Your task to perform on an android device: add a contact Image 0: 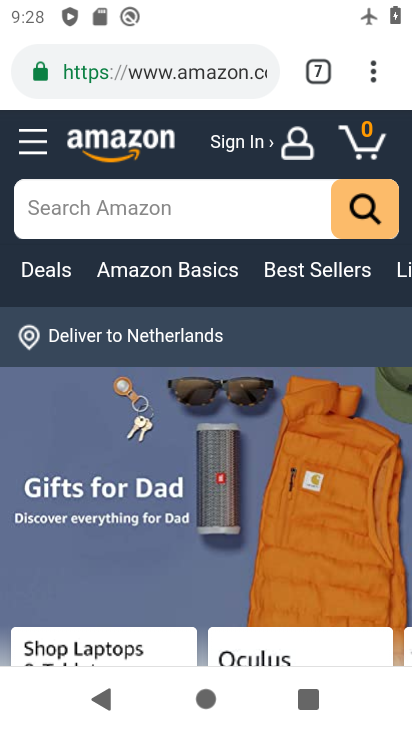
Step 0: press home button
Your task to perform on an android device: add a contact Image 1: 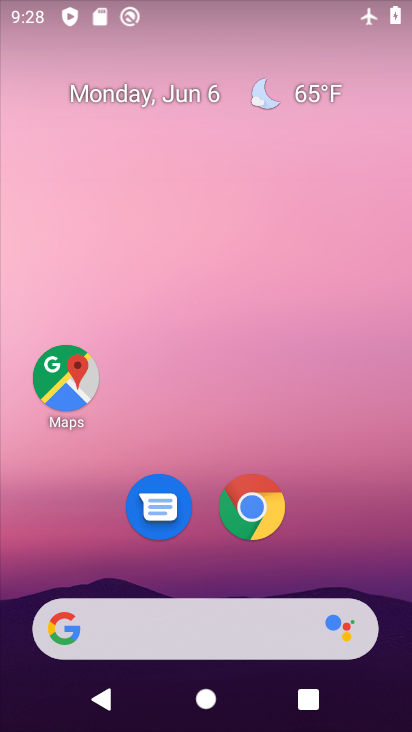
Step 1: drag from (247, 576) to (254, 210)
Your task to perform on an android device: add a contact Image 2: 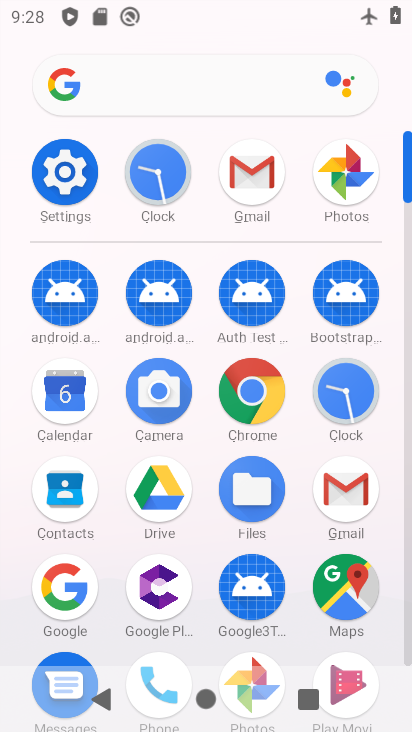
Step 2: drag from (181, 632) to (221, 360)
Your task to perform on an android device: add a contact Image 3: 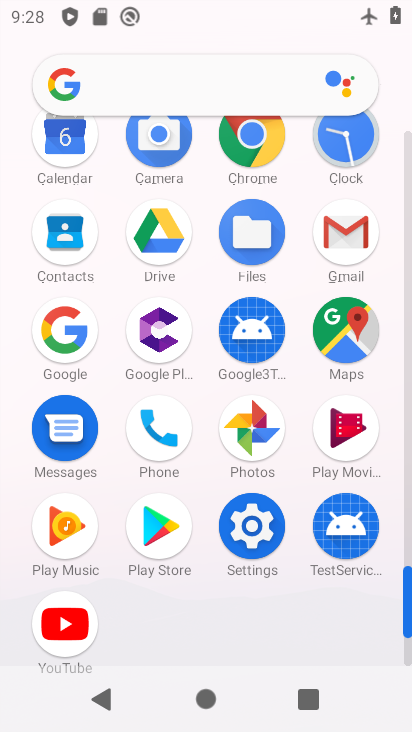
Step 3: click (163, 422)
Your task to perform on an android device: add a contact Image 4: 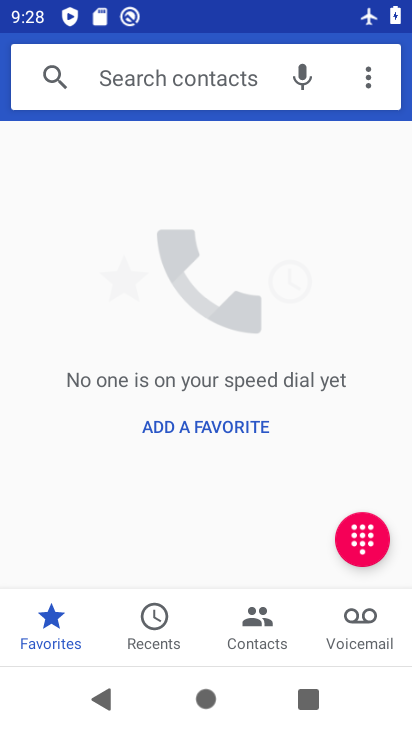
Step 4: click (192, 431)
Your task to perform on an android device: add a contact Image 5: 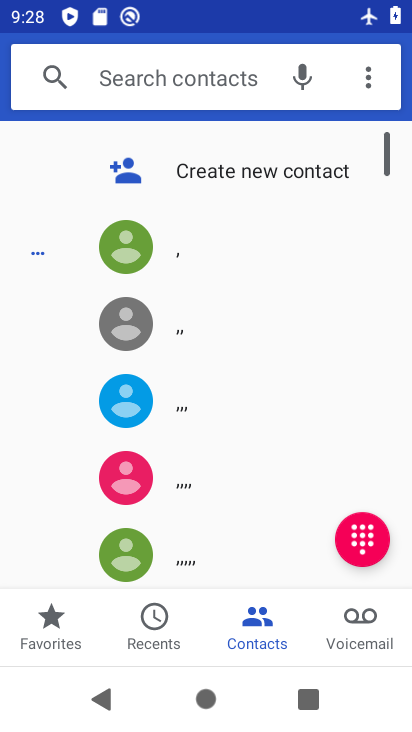
Step 5: click (170, 176)
Your task to perform on an android device: add a contact Image 6: 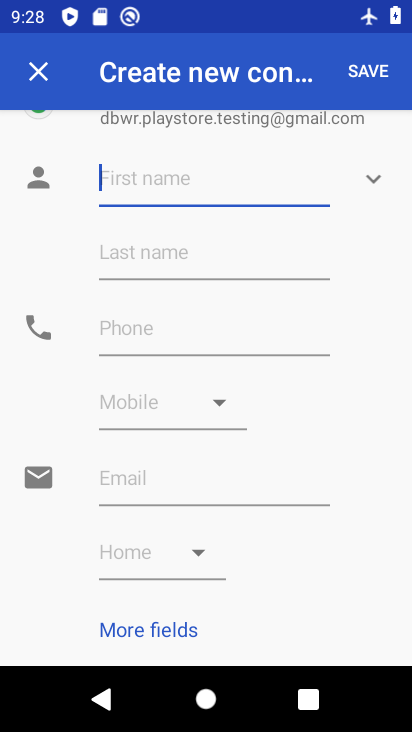
Step 6: click (171, 174)
Your task to perform on an android device: add a contact Image 7: 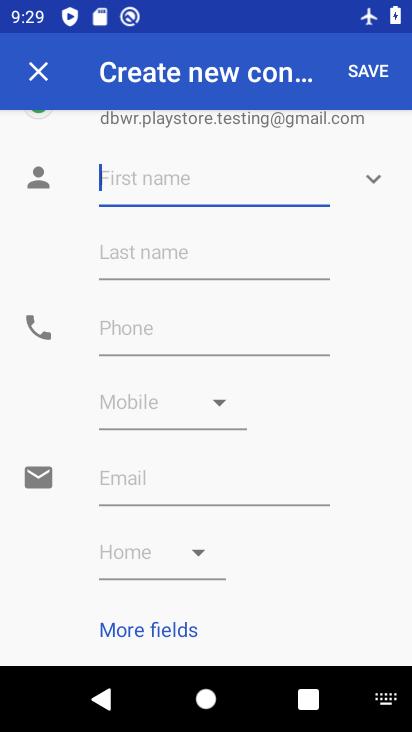
Step 7: type "ggccgccgccgcggcgcgcgcg"
Your task to perform on an android device: add a contact Image 8: 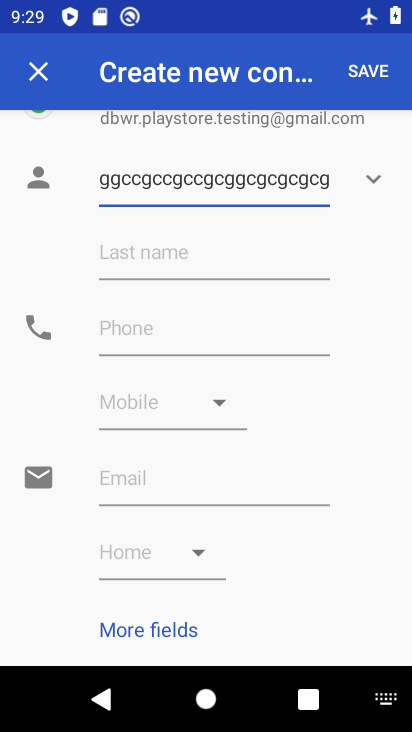
Step 8: click (161, 319)
Your task to perform on an android device: add a contact Image 9: 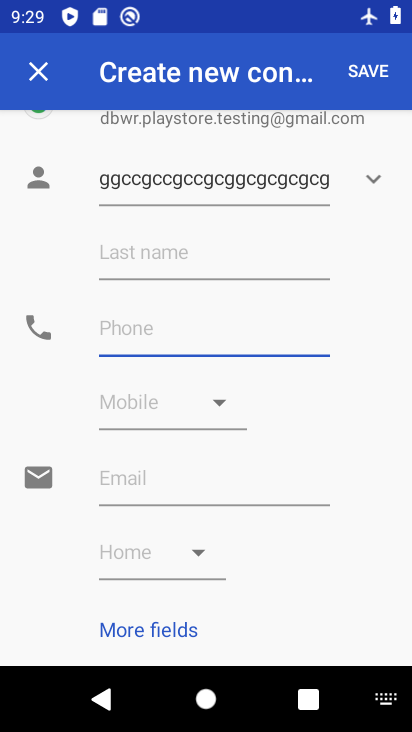
Step 9: type "87878778787878"
Your task to perform on an android device: add a contact Image 10: 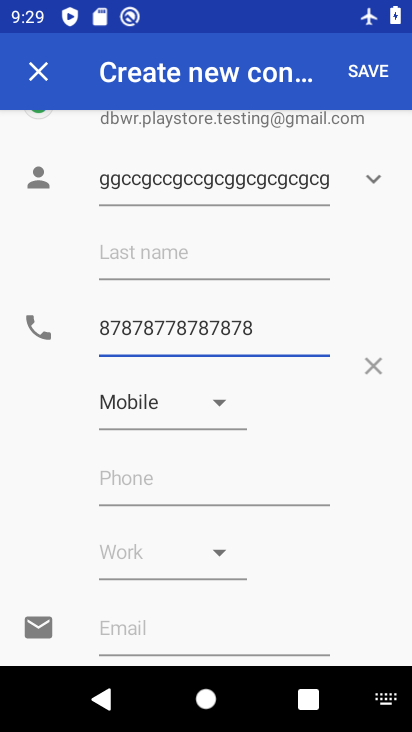
Step 10: click (352, 69)
Your task to perform on an android device: add a contact Image 11: 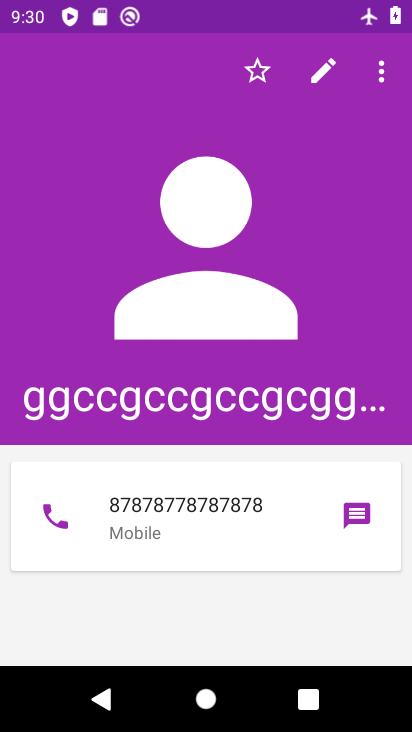
Step 11: task complete